Your task to perform on an android device: Open Google Chrome Image 0: 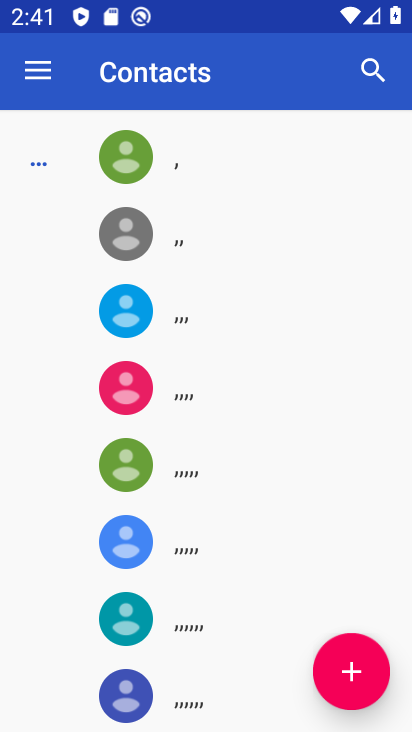
Step 0: press home button
Your task to perform on an android device: Open Google Chrome Image 1: 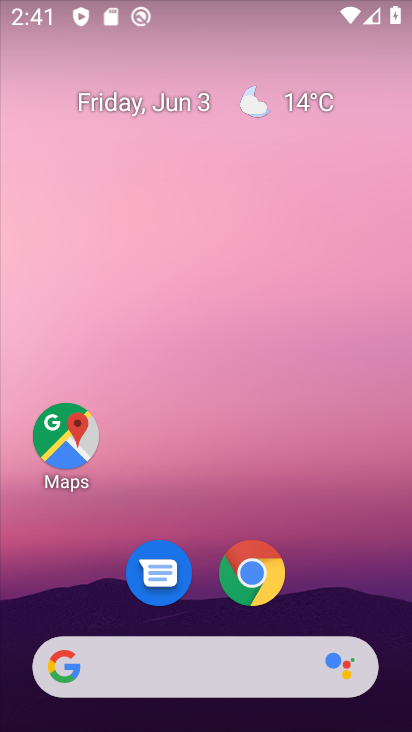
Step 1: drag from (262, 655) to (281, 3)
Your task to perform on an android device: Open Google Chrome Image 2: 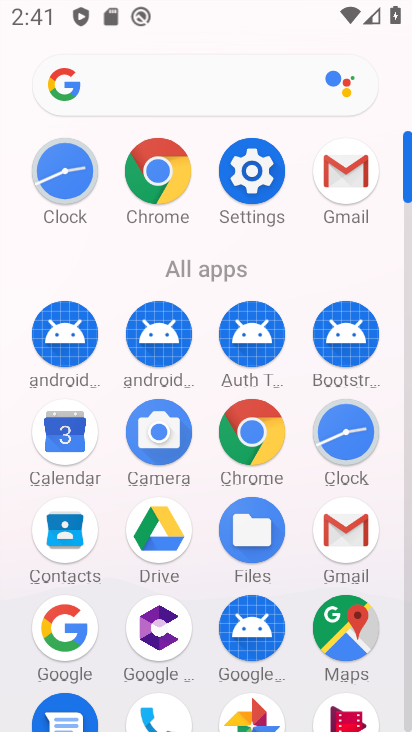
Step 2: click (266, 428)
Your task to perform on an android device: Open Google Chrome Image 3: 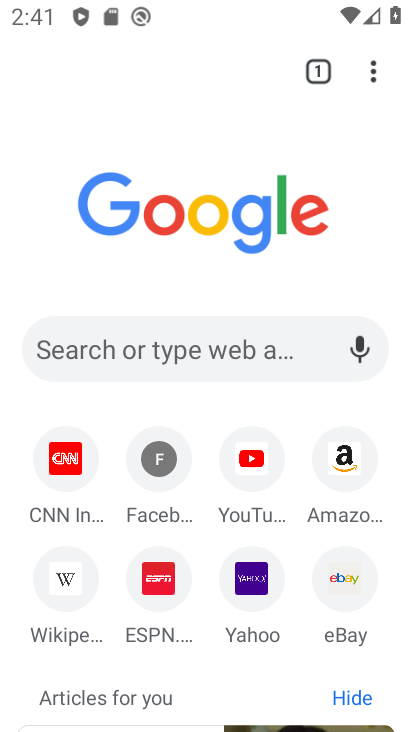
Step 3: task complete